Your task to perform on an android device: Go to privacy settings Image 0: 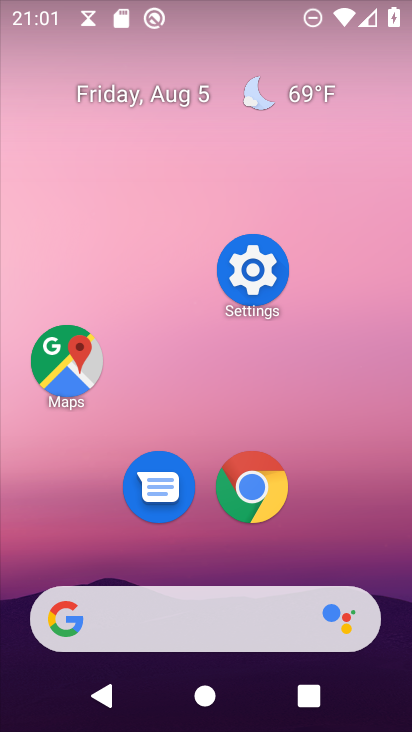
Step 0: click (255, 266)
Your task to perform on an android device: Go to privacy settings Image 1: 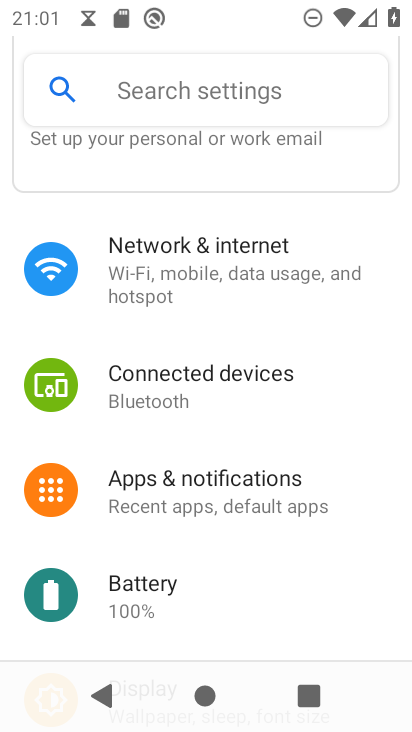
Step 1: drag from (224, 601) to (336, 212)
Your task to perform on an android device: Go to privacy settings Image 2: 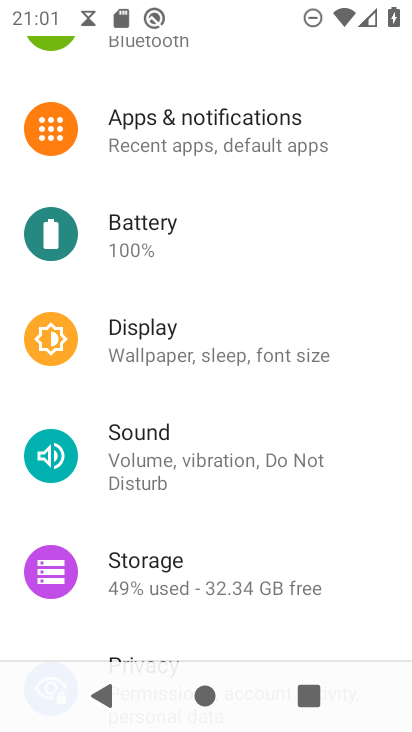
Step 2: drag from (227, 550) to (344, 227)
Your task to perform on an android device: Go to privacy settings Image 3: 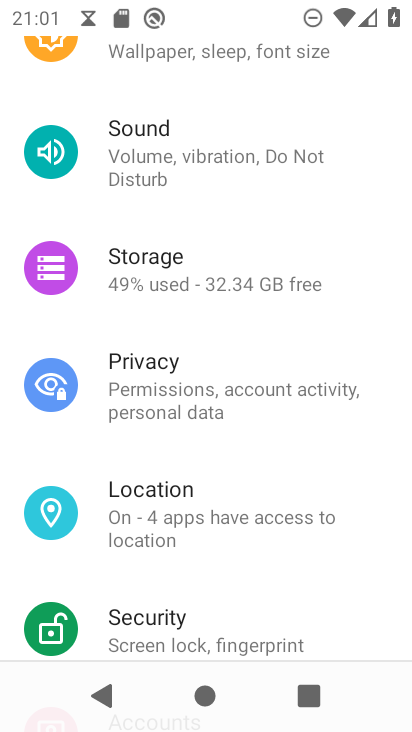
Step 3: click (182, 374)
Your task to perform on an android device: Go to privacy settings Image 4: 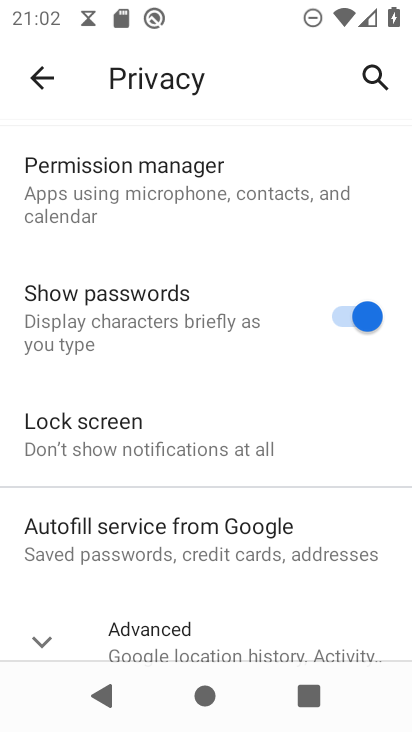
Step 4: task complete